Your task to perform on an android device: Open the calendar and show me this week's events? Image 0: 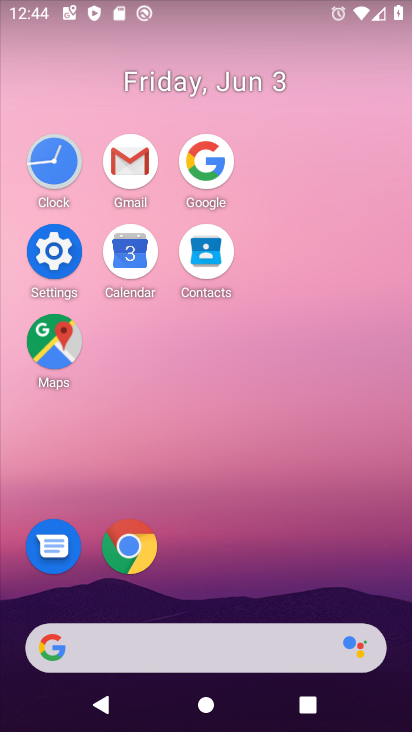
Step 0: click (108, 244)
Your task to perform on an android device: Open the calendar and show me this week's events? Image 1: 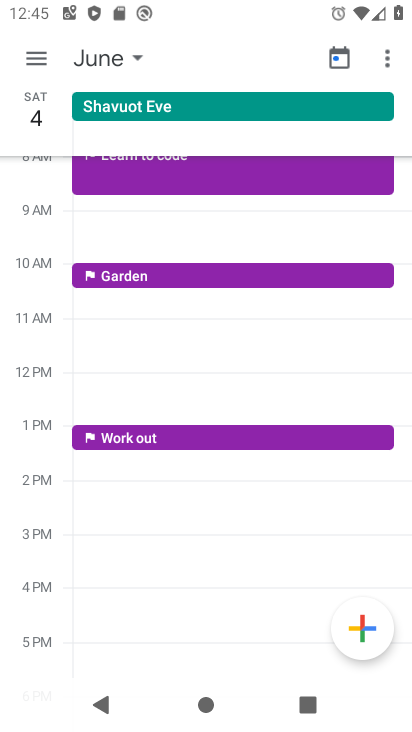
Step 1: click (30, 68)
Your task to perform on an android device: Open the calendar and show me this week's events? Image 2: 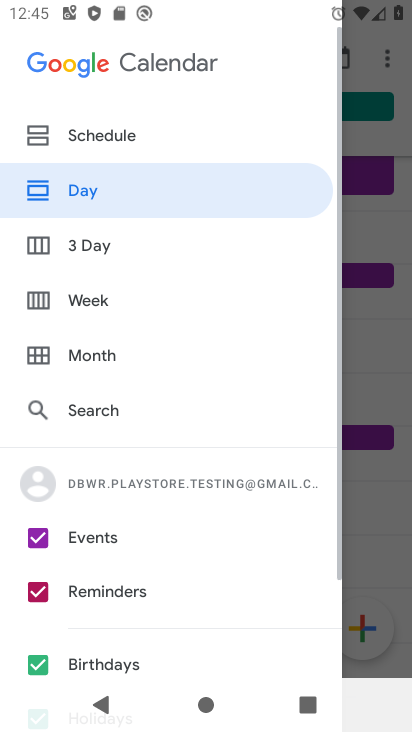
Step 2: click (219, 304)
Your task to perform on an android device: Open the calendar and show me this week's events? Image 3: 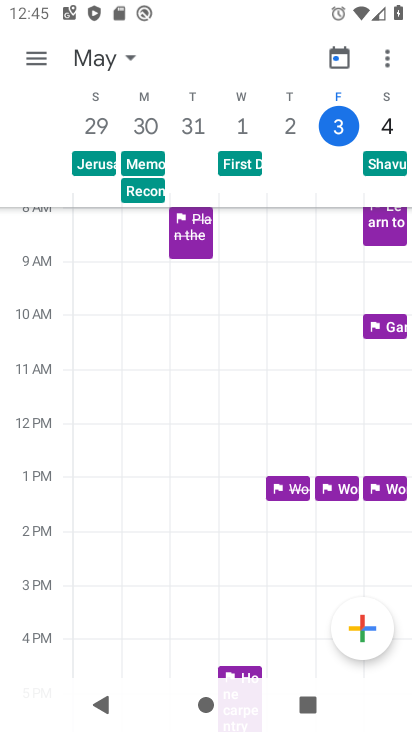
Step 3: task complete